Your task to perform on an android device: check data usage Image 0: 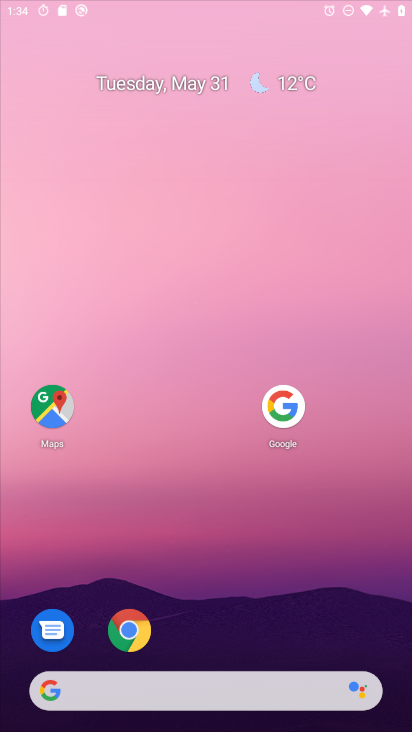
Step 0: press home button
Your task to perform on an android device: check data usage Image 1: 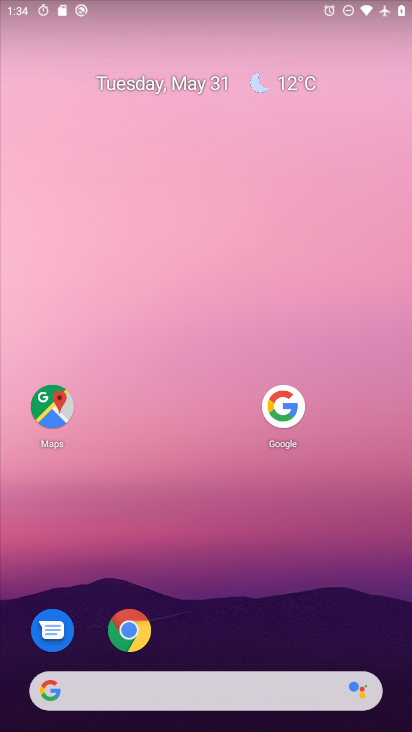
Step 1: drag from (154, 689) to (298, 132)
Your task to perform on an android device: check data usage Image 2: 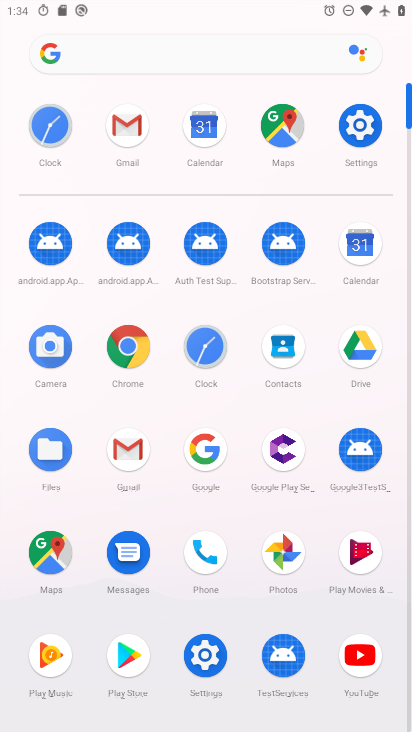
Step 2: click (363, 137)
Your task to perform on an android device: check data usage Image 3: 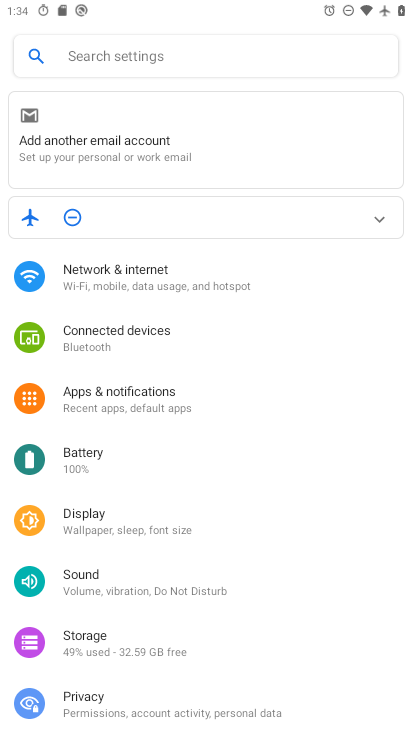
Step 3: click (154, 277)
Your task to perform on an android device: check data usage Image 4: 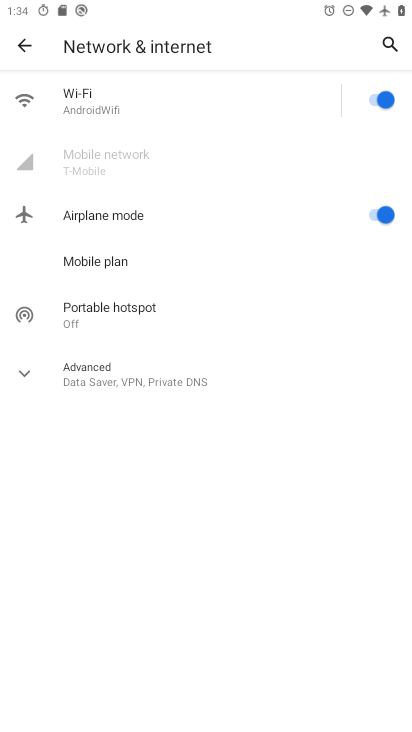
Step 4: click (110, 106)
Your task to perform on an android device: check data usage Image 5: 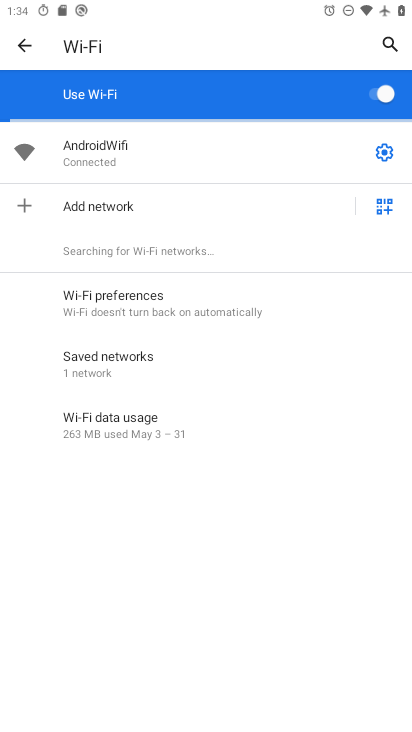
Step 5: click (112, 425)
Your task to perform on an android device: check data usage Image 6: 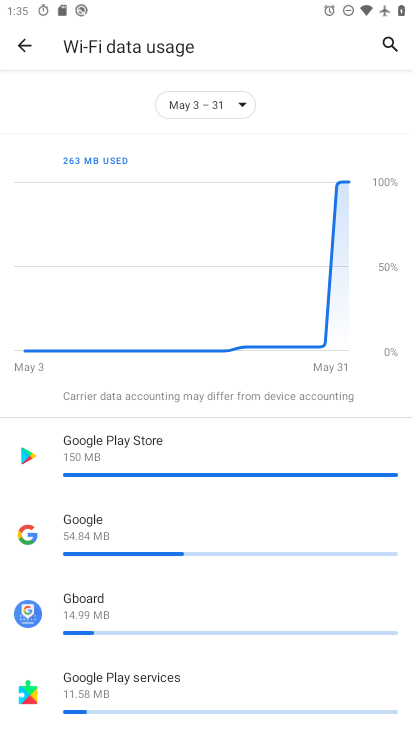
Step 6: task complete